Your task to perform on an android device: Open the calendar and show me this week's events? Image 0: 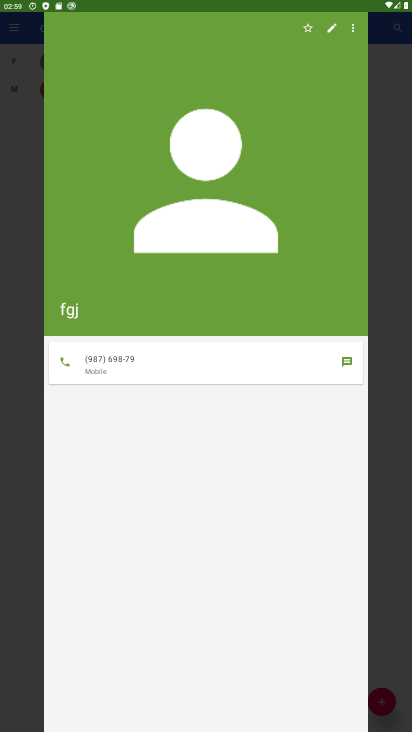
Step 0: press home button
Your task to perform on an android device: Open the calendar and show me this week's events? Image 1: 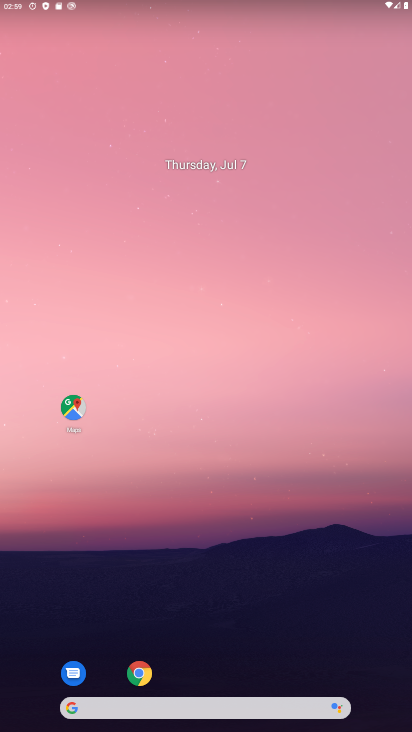
Step 1: drag from (207, 668) to (222, 204)
Your task to perform on an android device: Open the calendar and show me this week's events? Image 2: 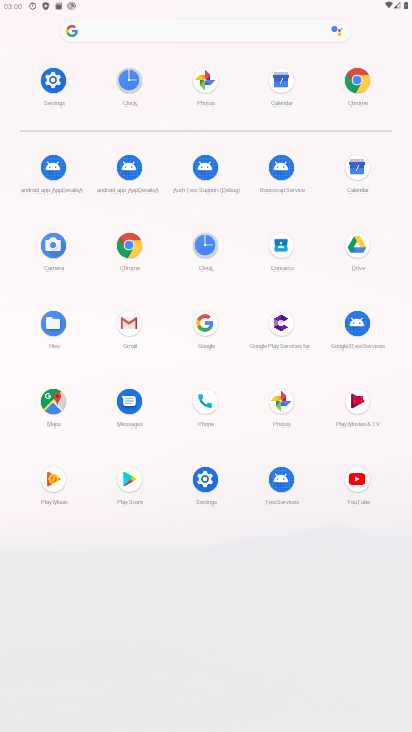
Step 2: click (360, 183)
Your task to perform on an android device: Open the calendar and show me this week's events? Image 3: 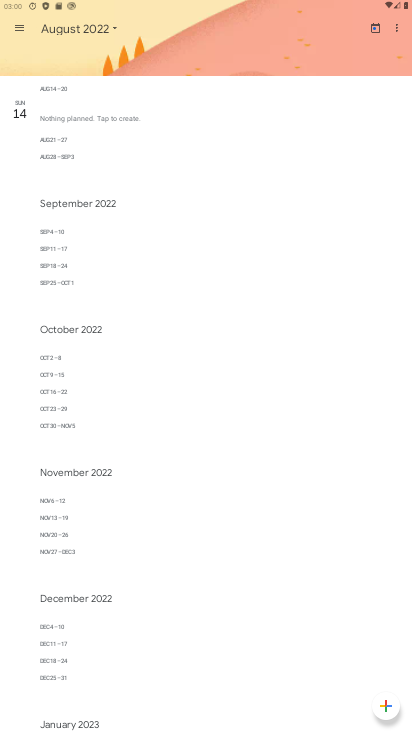
Step 3: click (117, 34)
Your task to perform on an android device: Open the calendar and show me this week's events? Image 4: 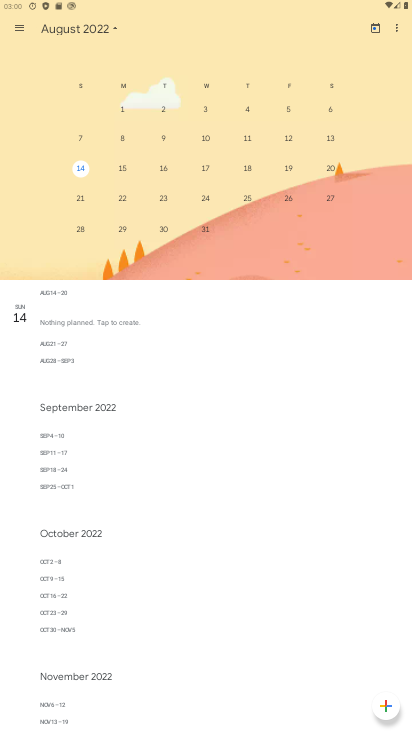
Step 4: drag from (97, 171) to (344, 183)
Your task to perform on an android device: Open the calendar and show me this week's events? Image 5: 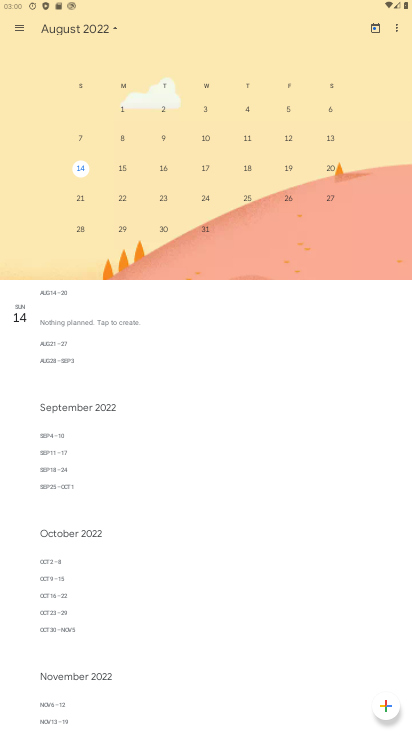
Step 5: click (128, 113)
Your task to perform on an android device: Open the calendar and show me this week's events? Image 6: 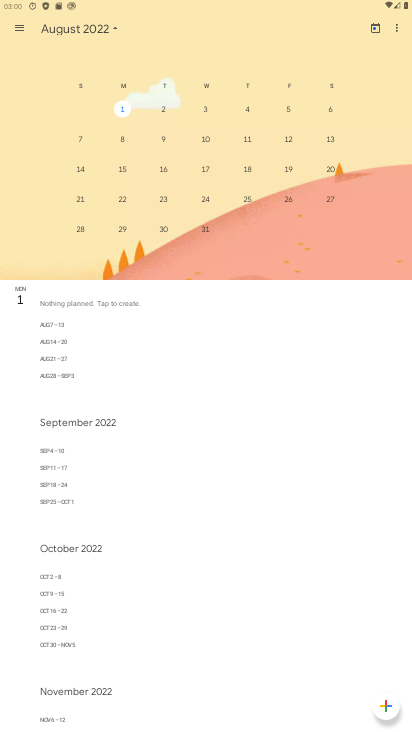
Step 6: click (77, 139)
Your task to perform on an android device: Open the calendar and show me this week's events? Image 7: 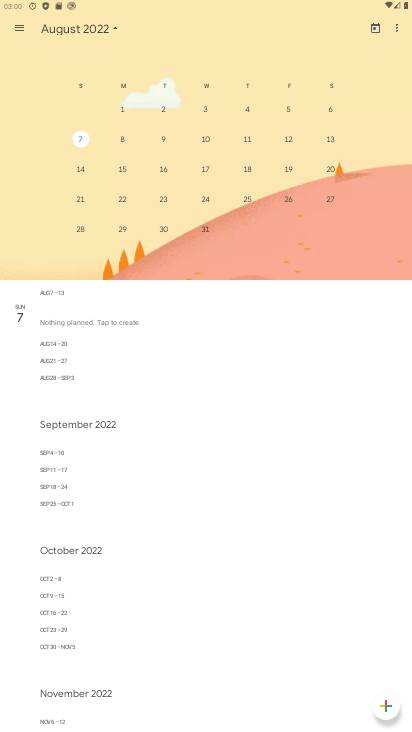
Step 7: drag from (60, 148) to (343, 164)
Your task to perform on an android device: Open the calendar and show me this week's events? Image 8: 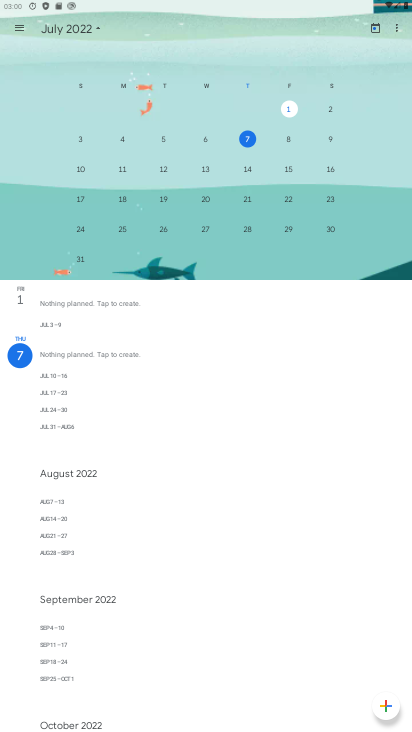
Step 8: click (237, 141)
Your task to perform on an android device: Open the calendar and show me this week's events? Image 9: 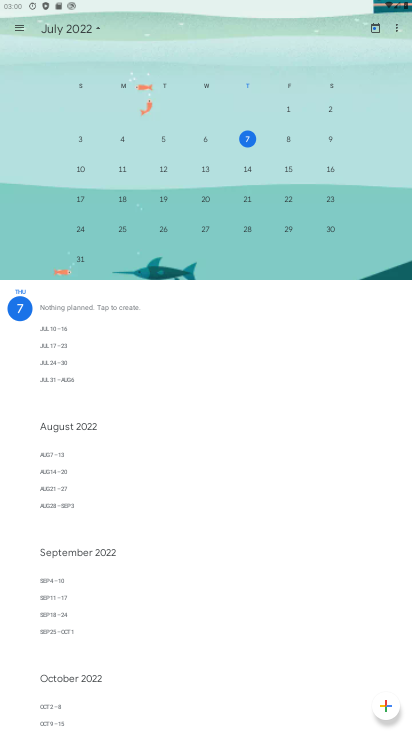
Step 9: task complete